Your task to perform on an android device: Search for hotels in Philadelphia Image 0: 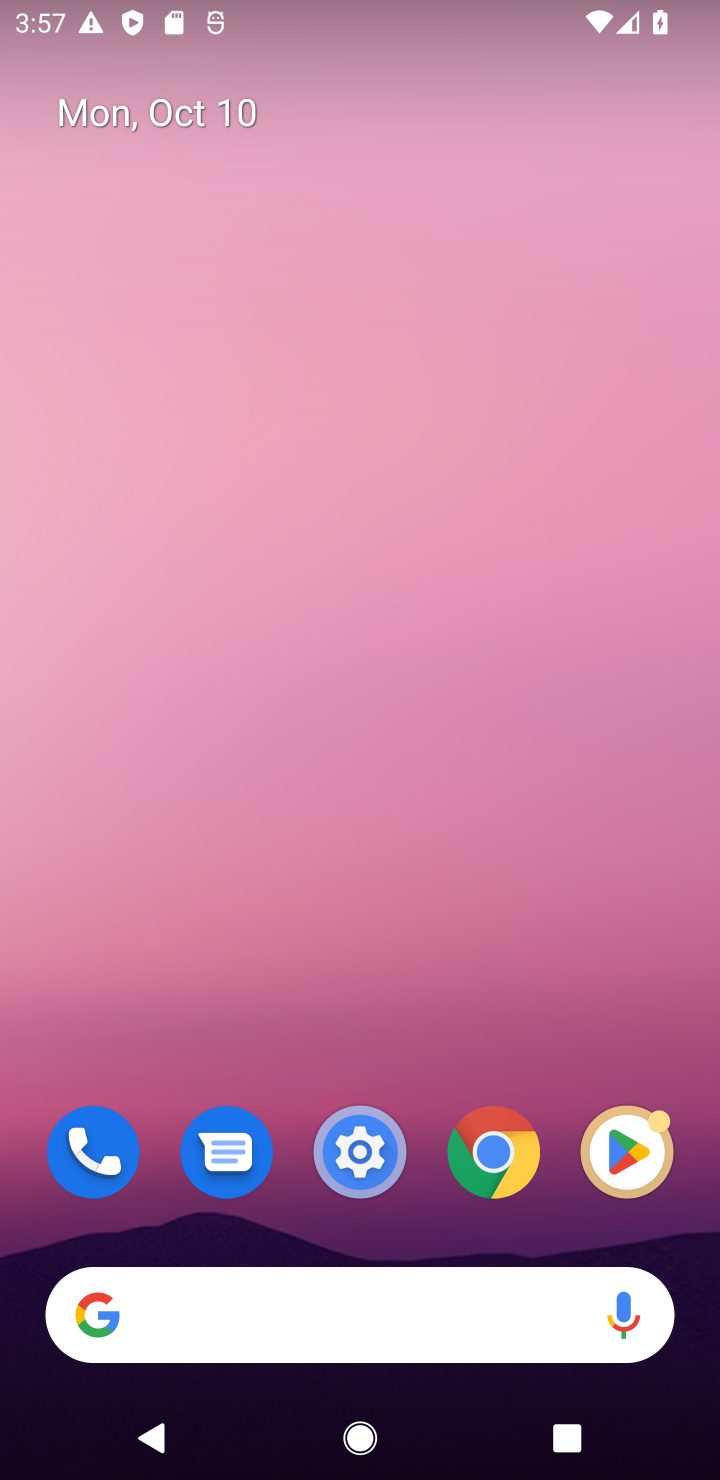
Step 0: click (497, 1165)
Your task to perform on an android device: Search for hotels in Philadelphia Image 1: 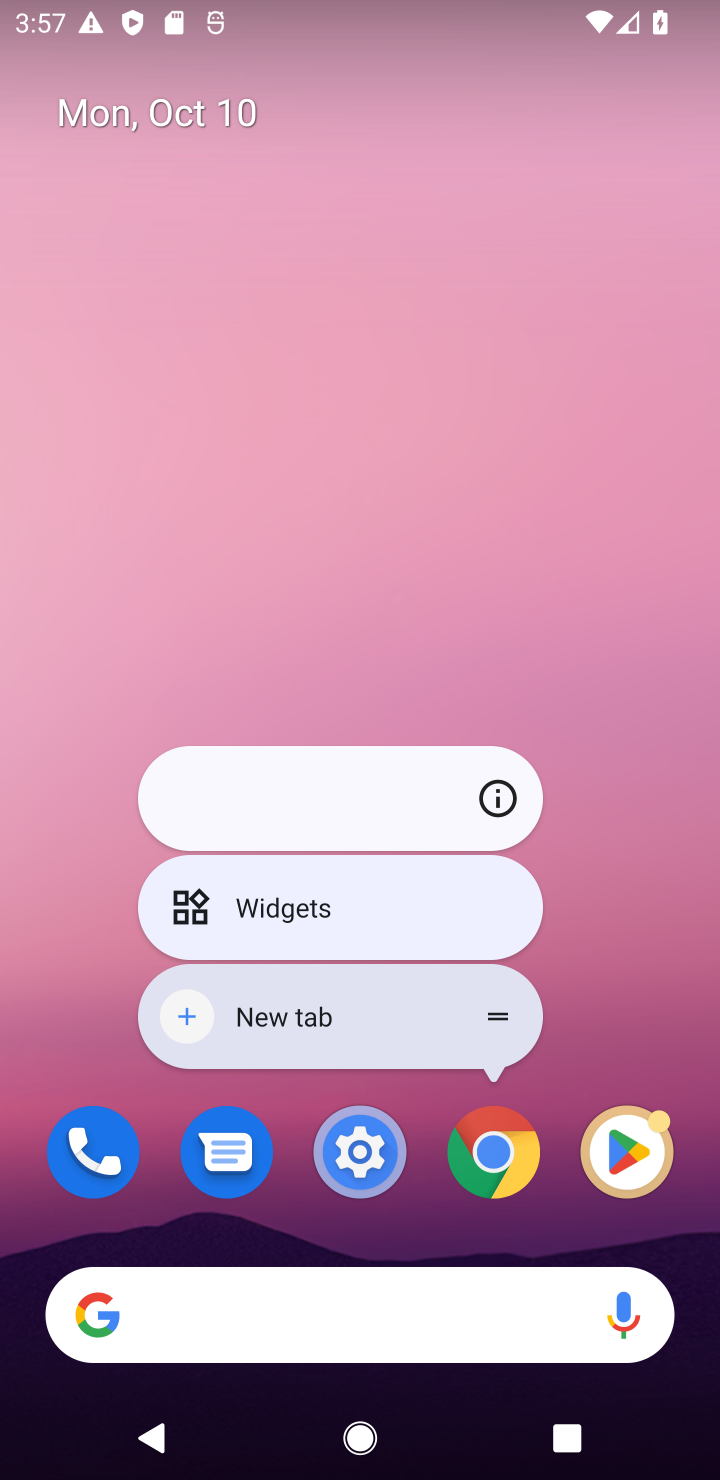
Step 1: click (496, 1145)
Your task to perform on an android device: Search for hotels in Philadelphia Image 2: 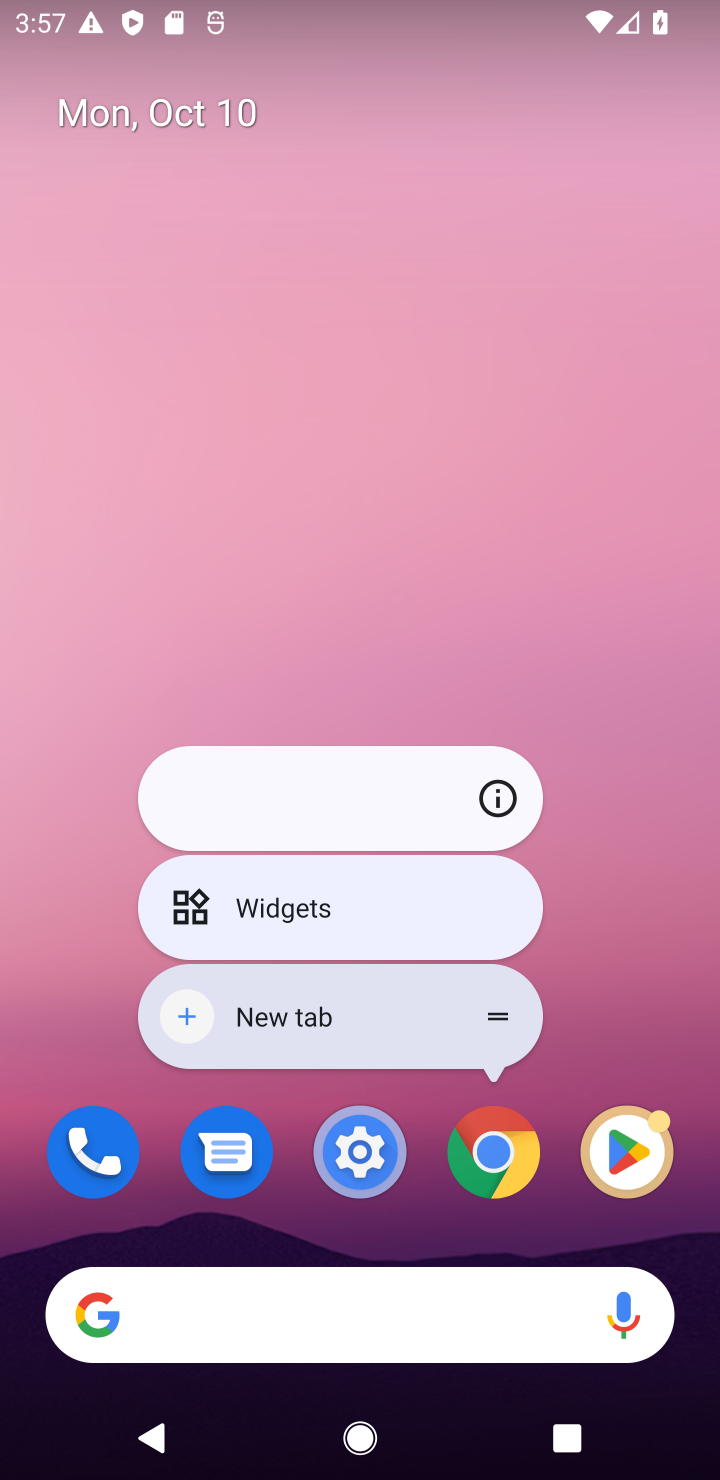
Step 2: click (494, 1157)
Your task to perform on an android device: Search for hotels in Philadelphia Image 3: 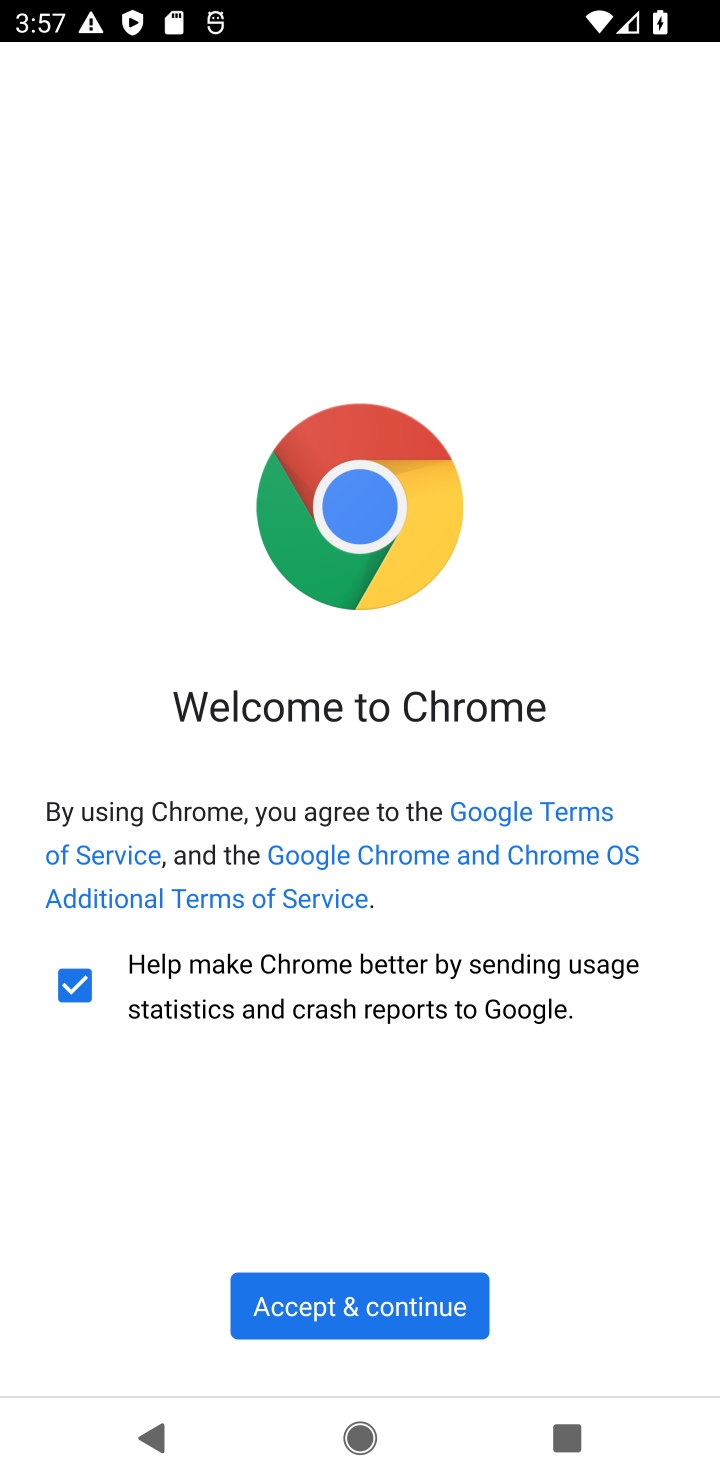
Step 3: click (369, 1306)
Your task to perform on an android device: Search for hotels in Philadelphia Image 4: 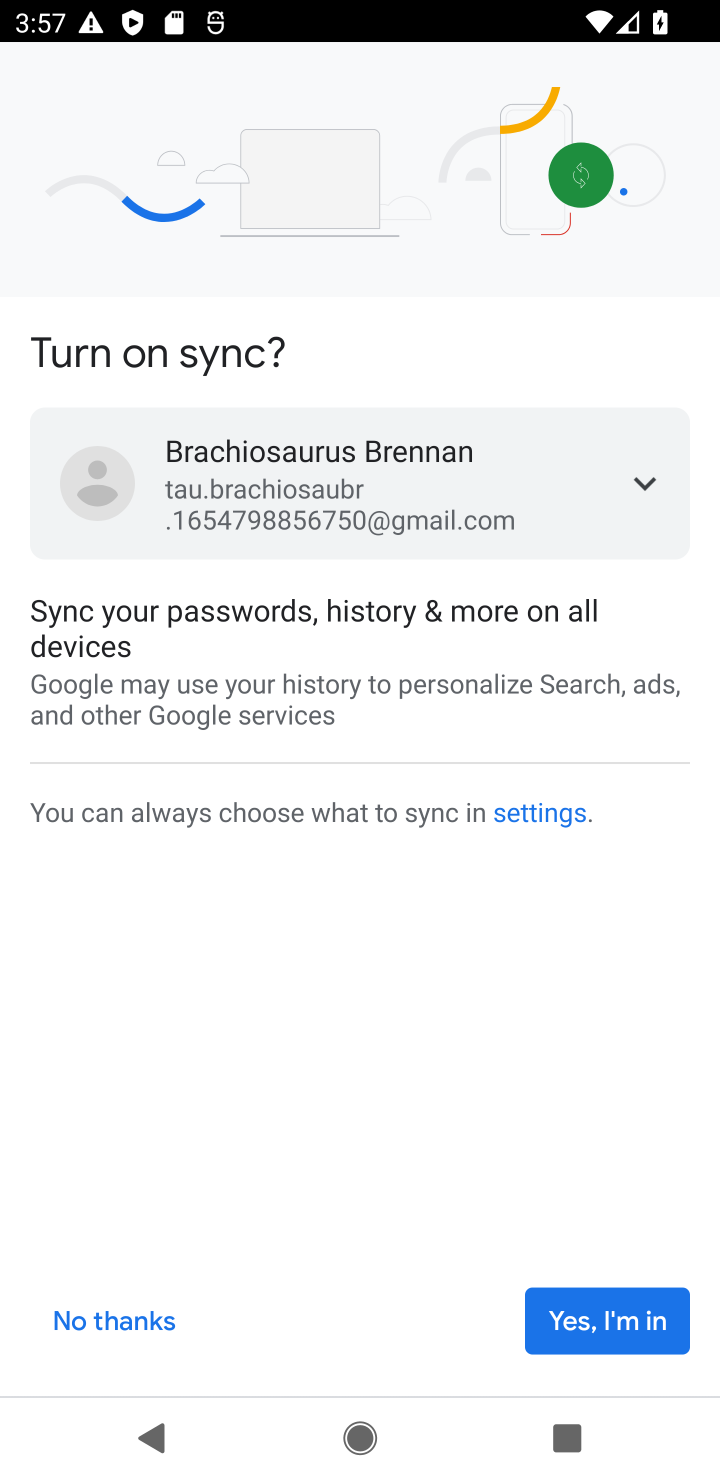
Step 4: click (601, 1326)
Your task to perform on an android device: Search for hotels in Philadelphia Image 5: 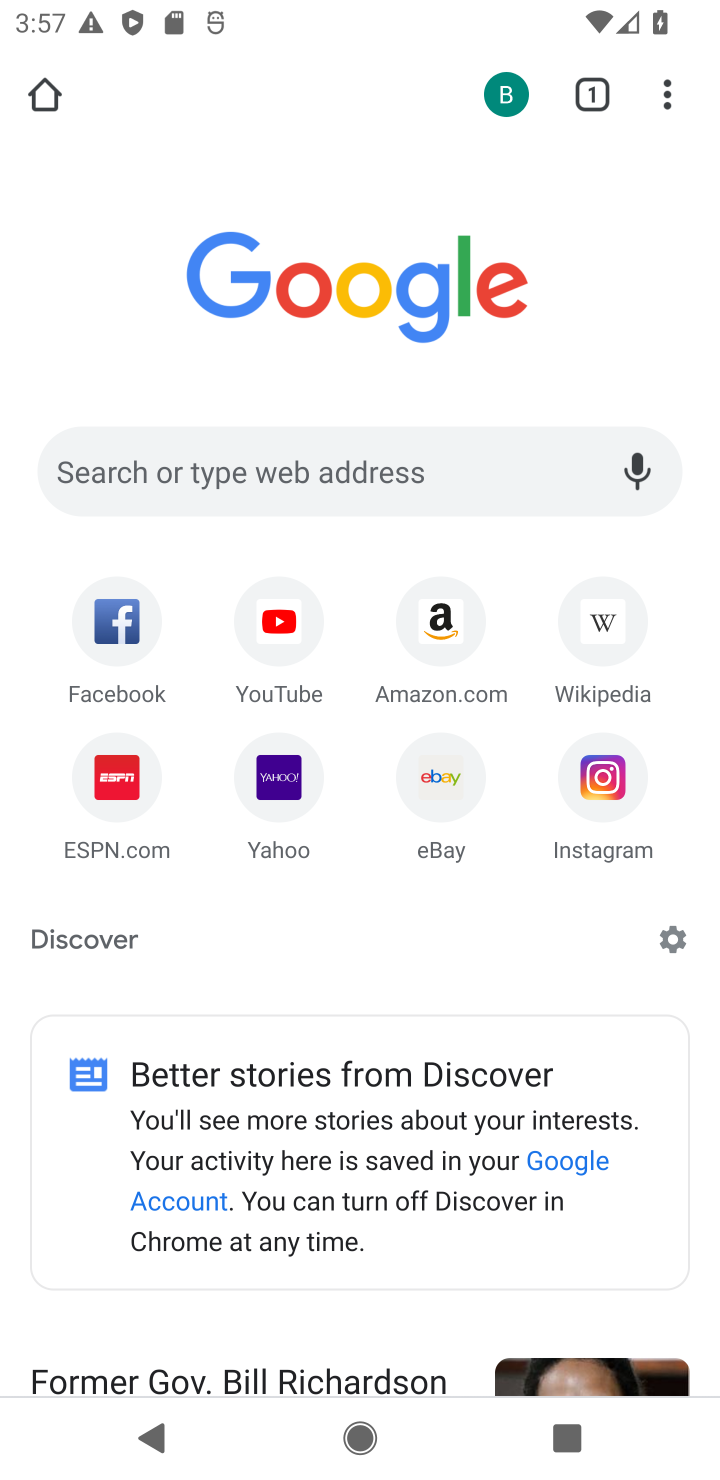
Step 5: click (384, 473)
Your task to perform on an android device: Search for hotels in Philadelphia Image 6: 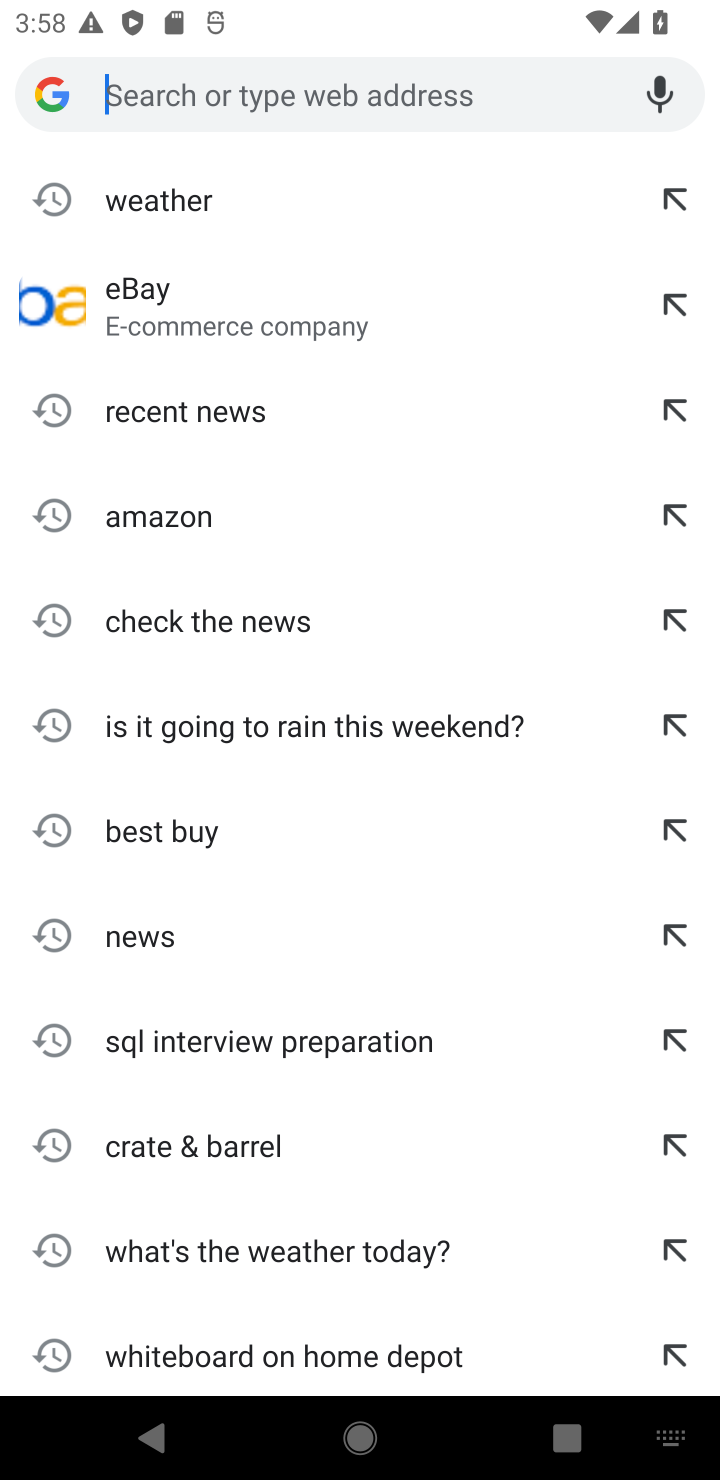
Step 6: type "Hotel in Philadelphia"
Your task to perform on an android device: Search for hotels in Philadelphia Image 7: 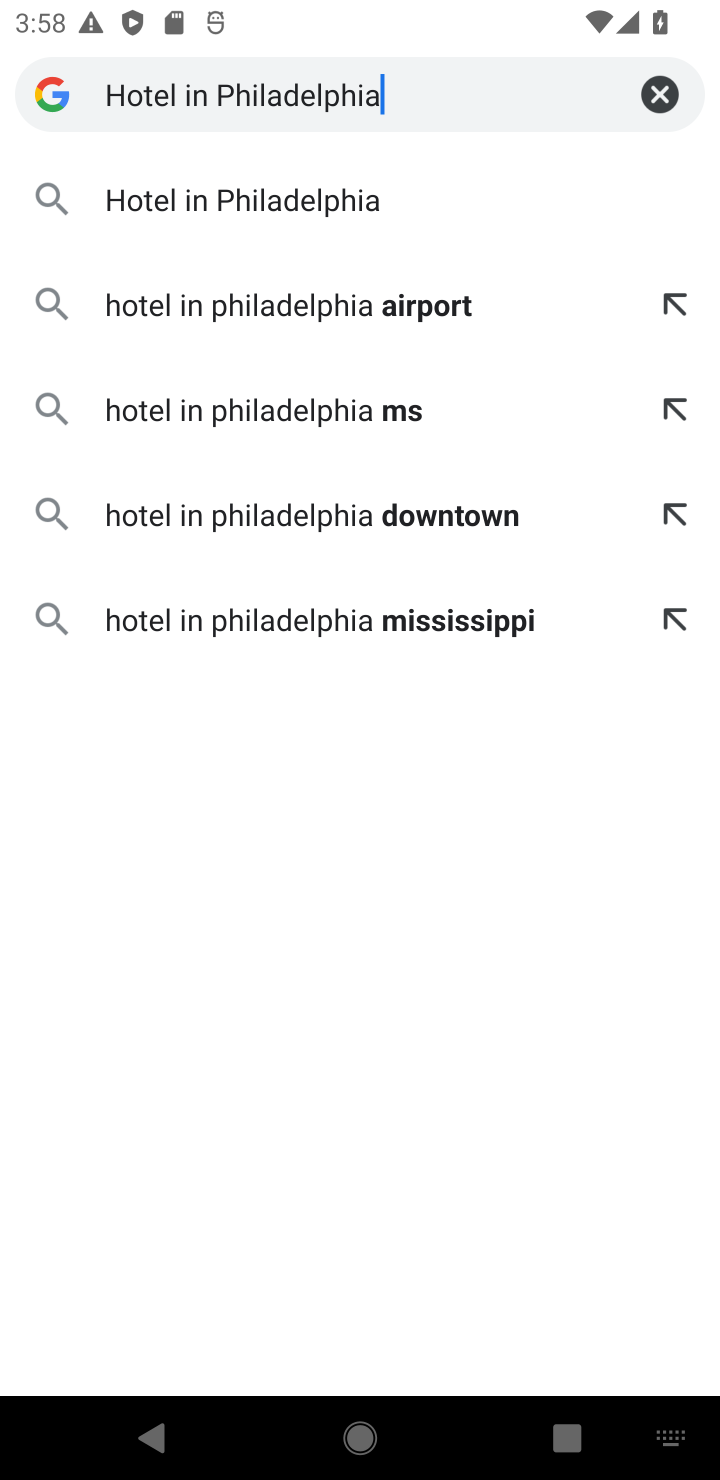
Step 7: click (273, 207)
Your task to perform on an android device: Search for hotels in Philadelphia Image 8: 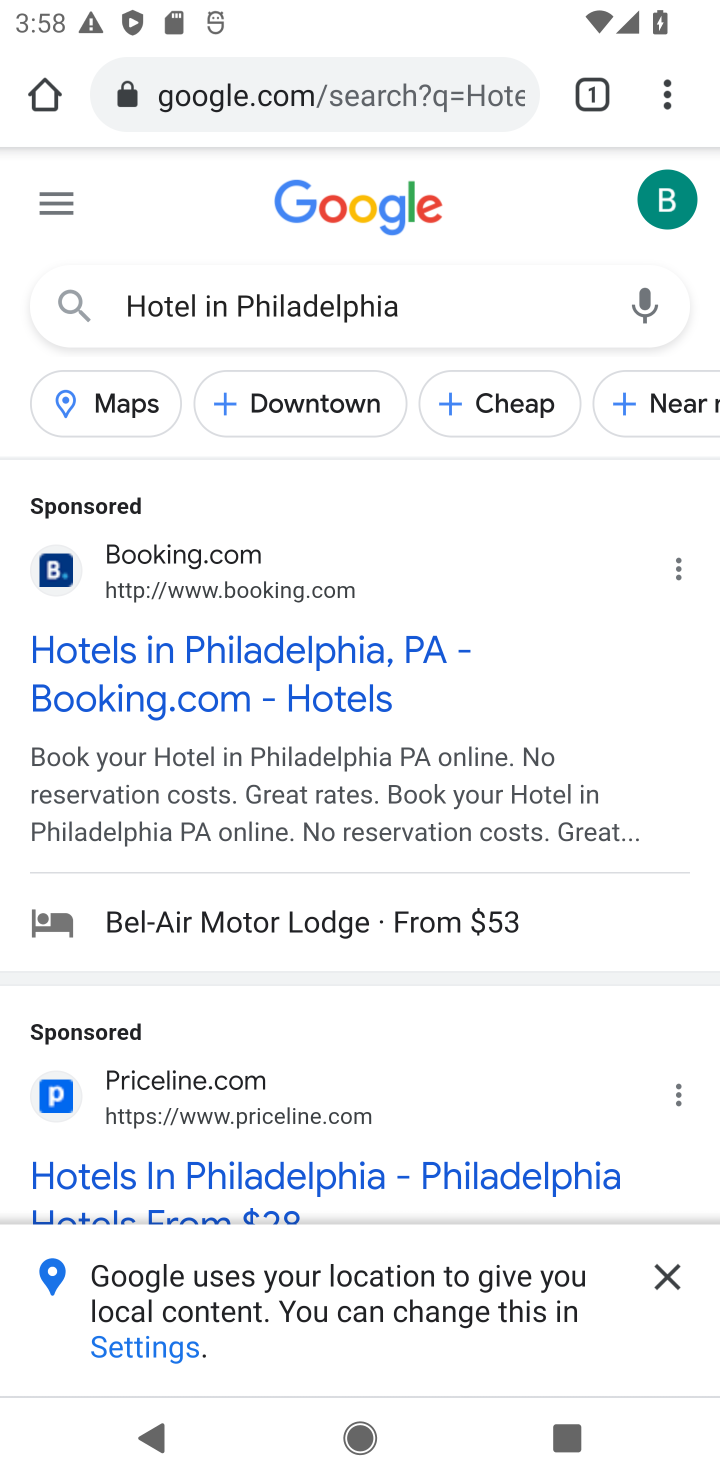
Step 8: click (364, 676)
Your task to perform on an android device: Search for hotels in Philadelphia Image 9: 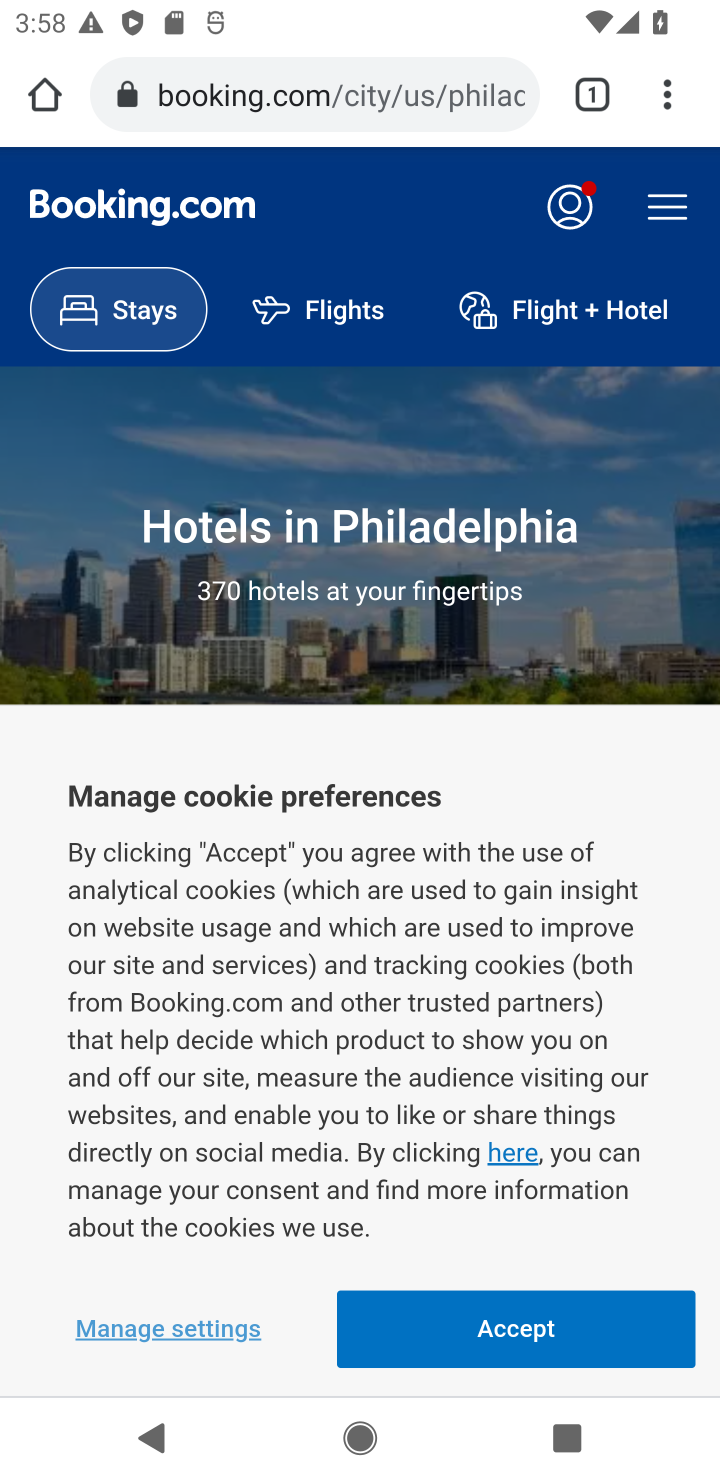
Step 9: click (486, 1328)
Your task to perform on an android device: Search for hotels in Philadelphia Image 10: 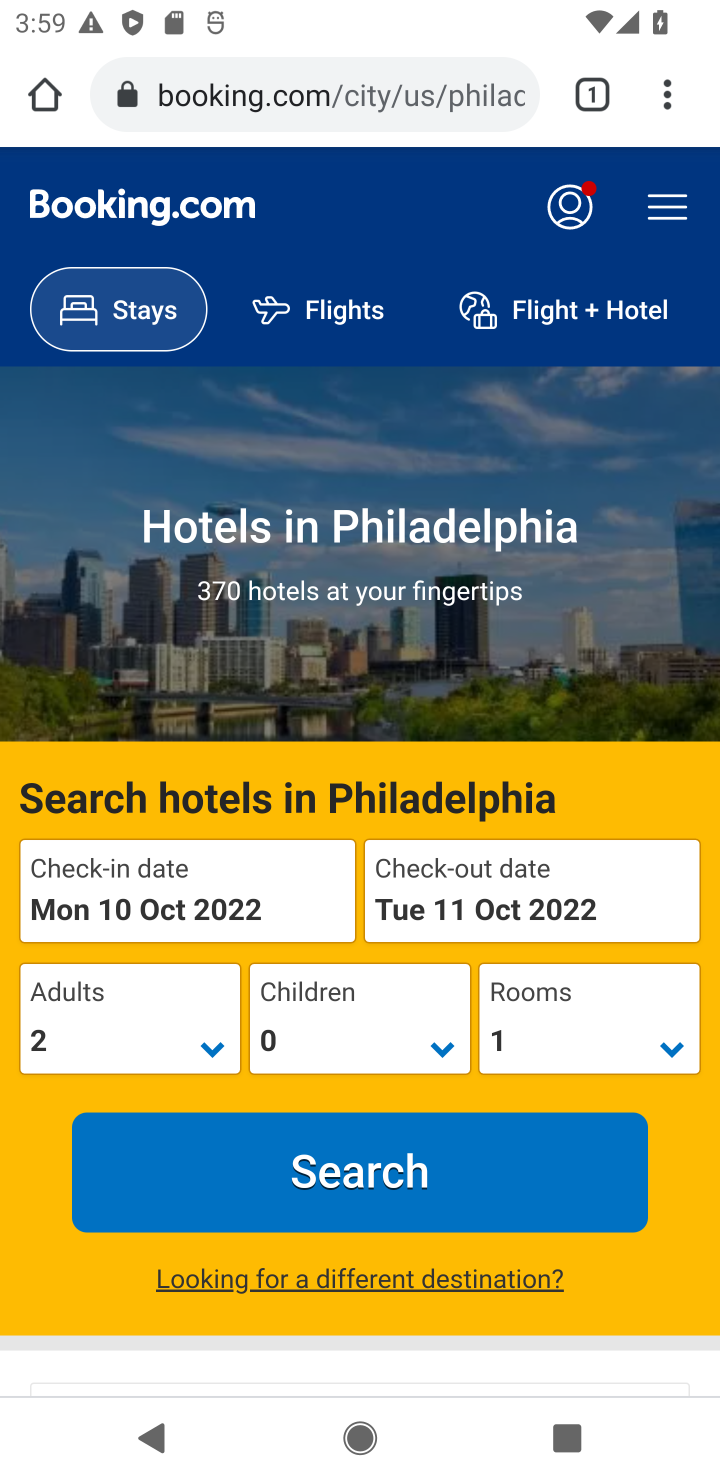
Step 10: task complete